Your task to perform on an android device: install app "Microsoft Excel" Image 0: 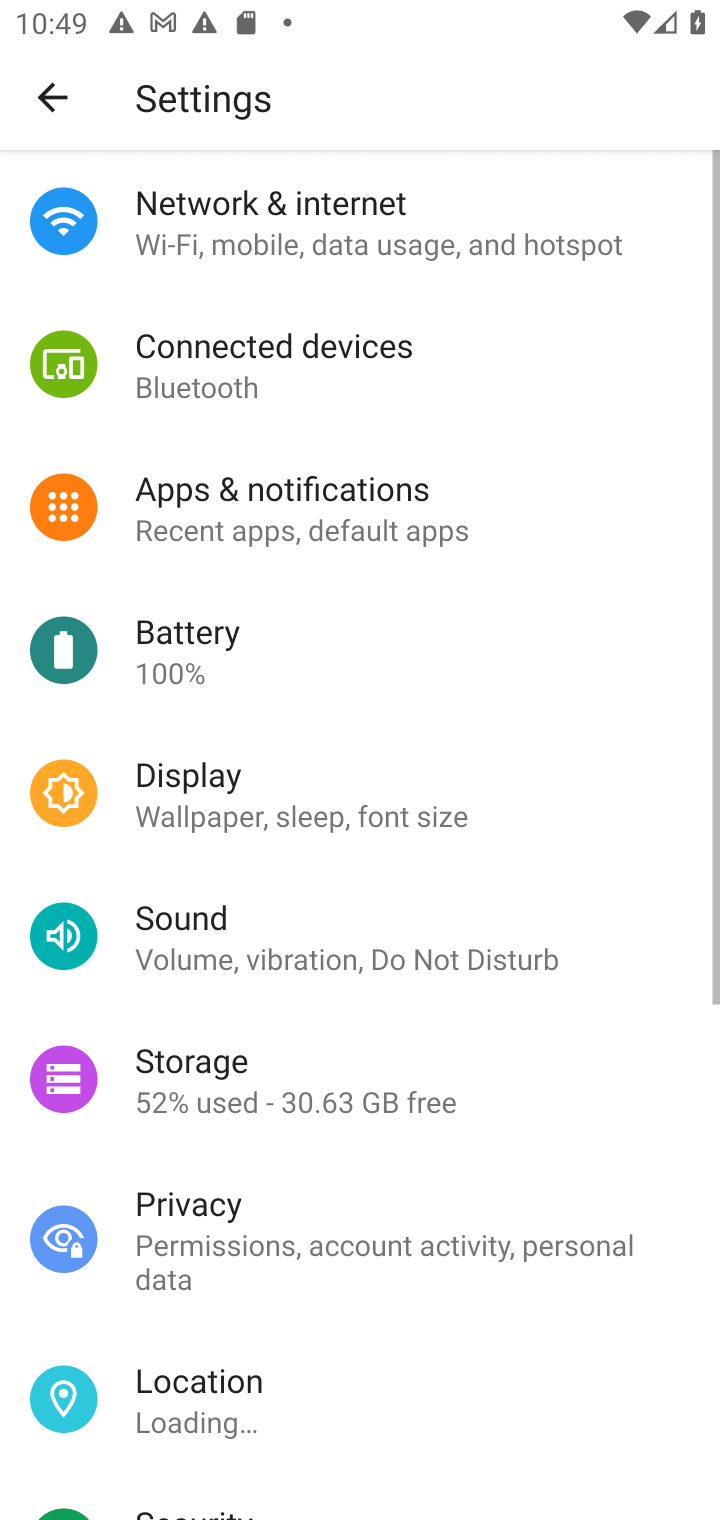
Step 0: press home button
Your task to perform on an android device: install app "Microsoft Excel" Image 1: 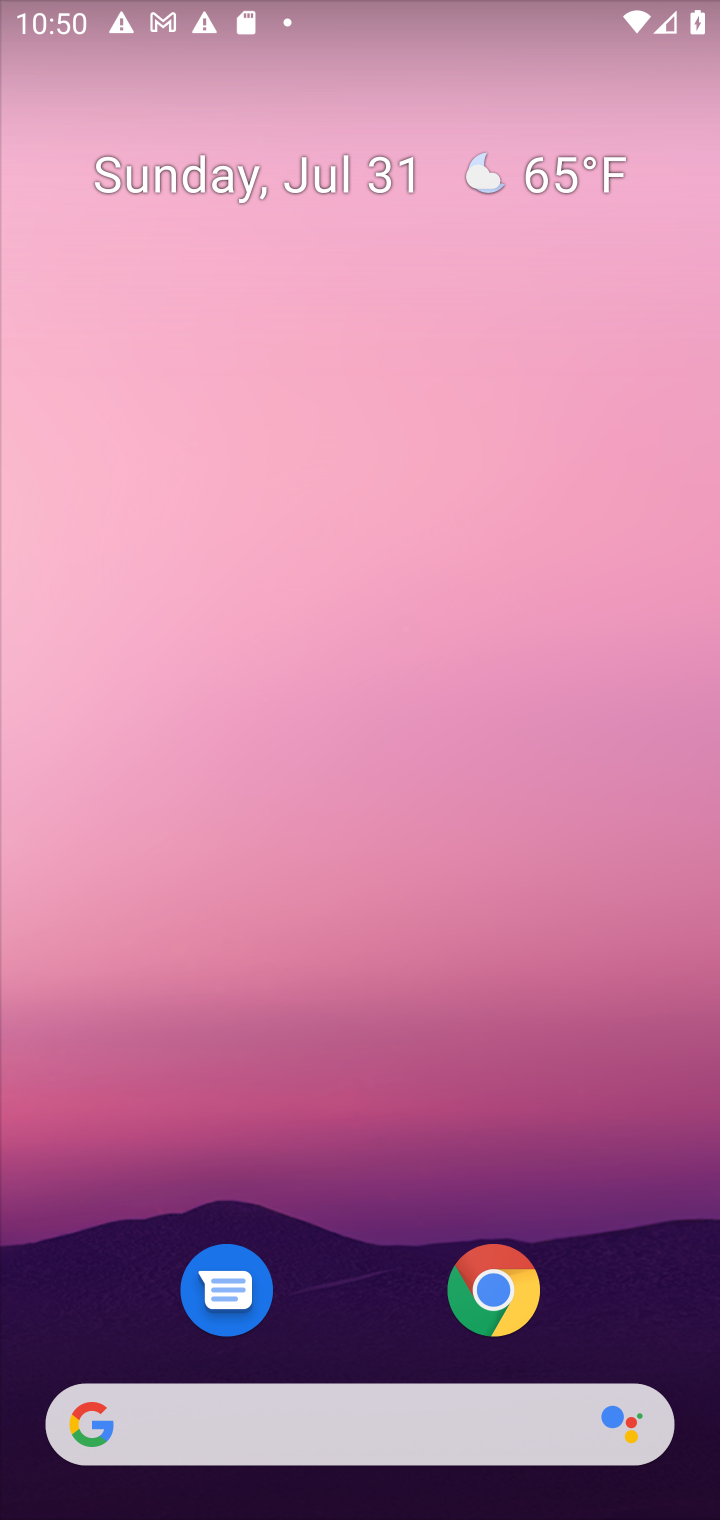
Step 1: drag from (604, 1186) to (614, 120)
Your task to perform on an android device: install app "Microsoft Excel" Image 2: 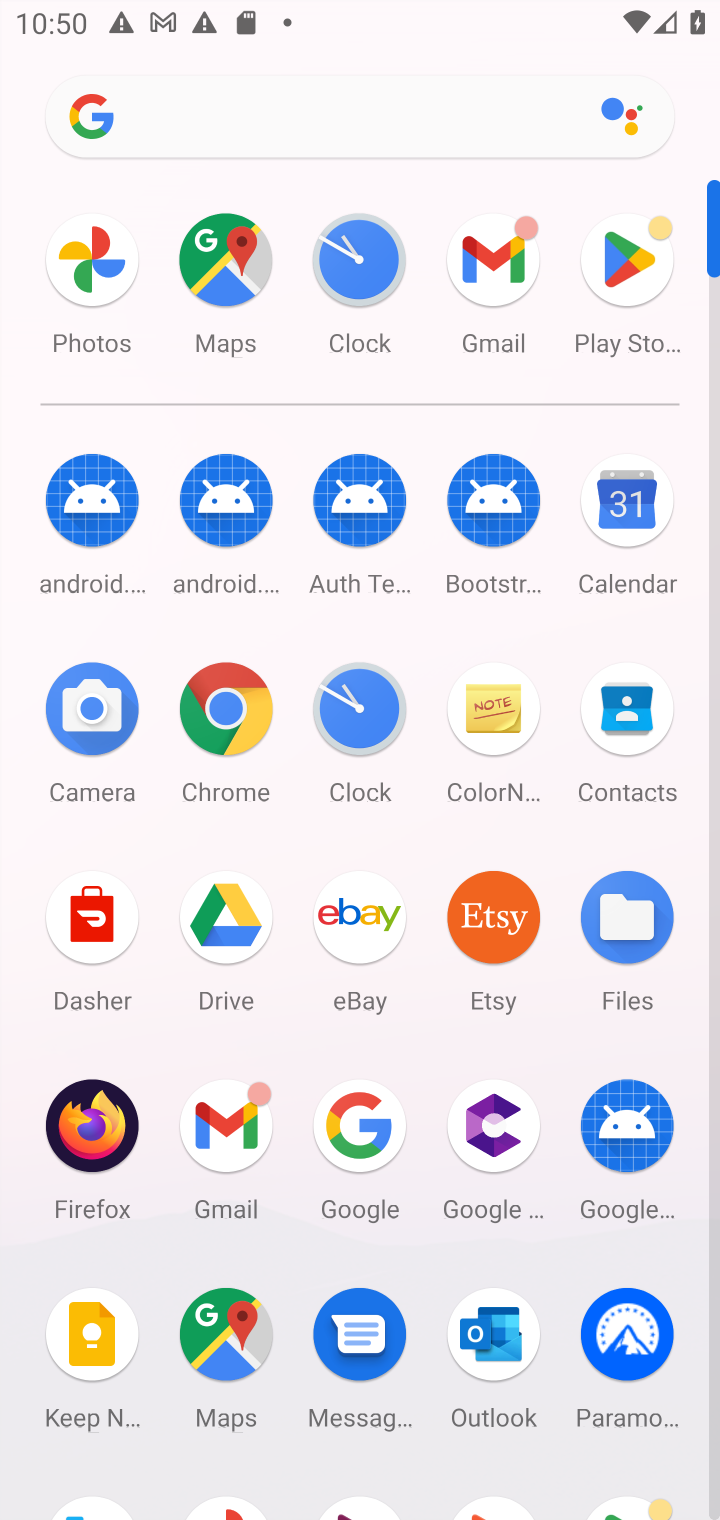
Step 2: click (627, 256)
Your task to perform on an android device: install app "Microsoft Excel" Image 3: 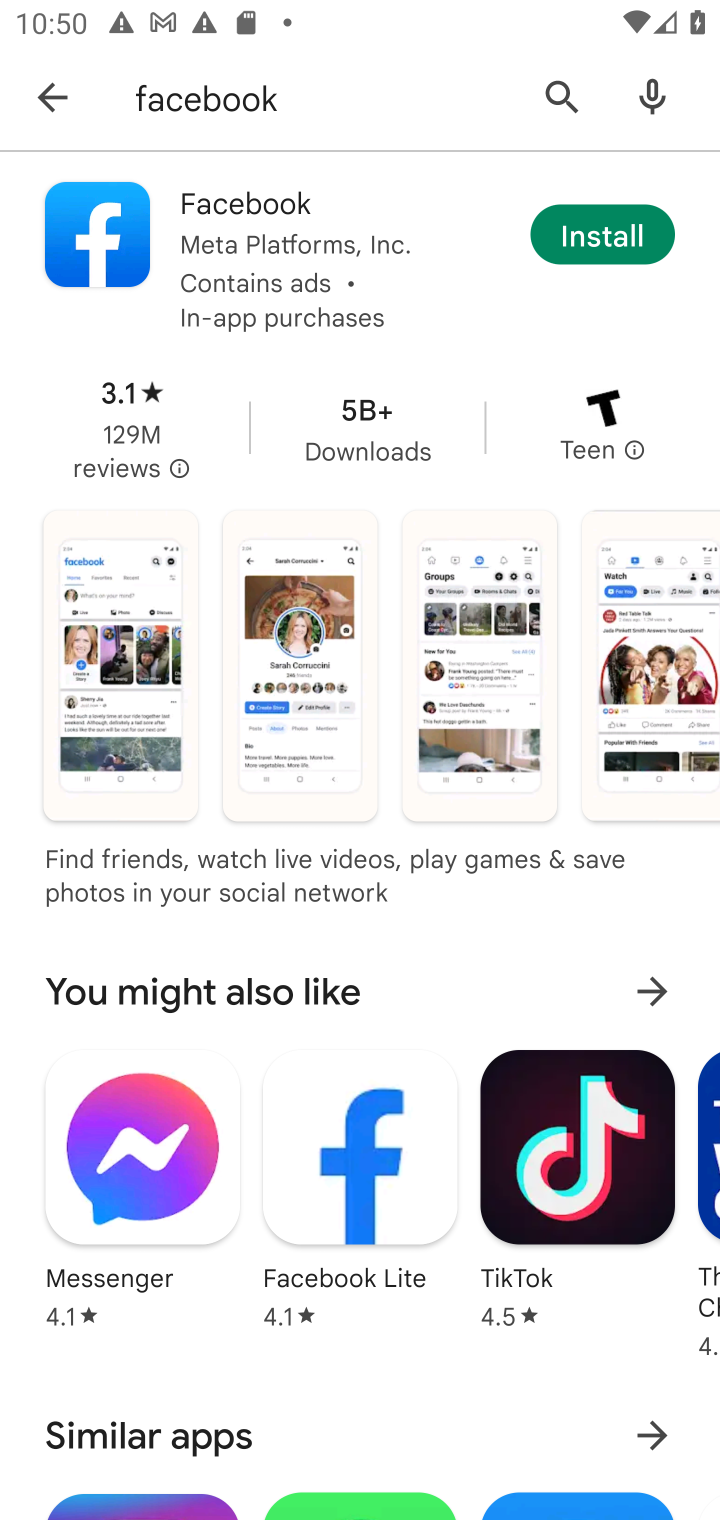
Step 3: click (561, 101)
Your task to perform on an android device: install app "Microsoft Excel" Image 4: 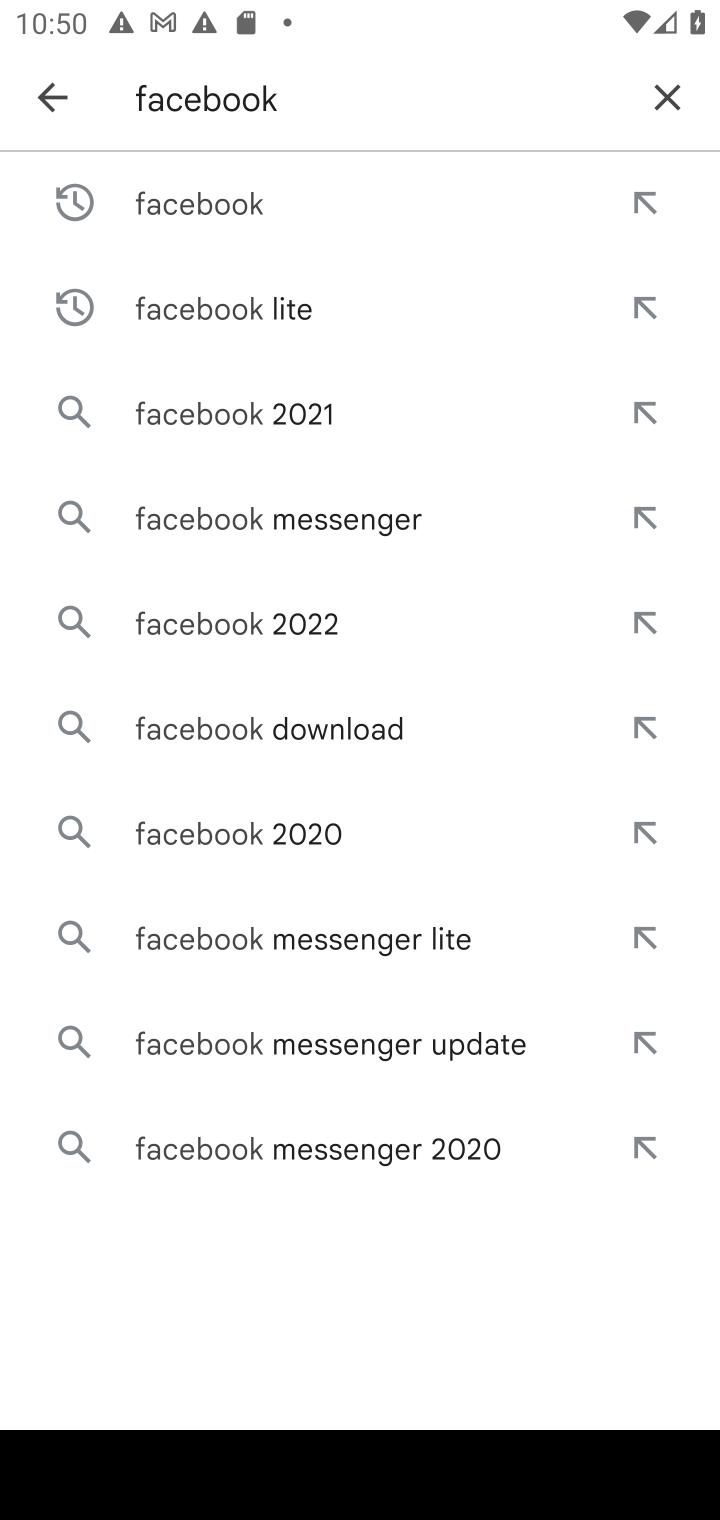
Step 4: click (657, 106)
Your task to perform on an android device: install app "Microsoft Excel" Image 5: 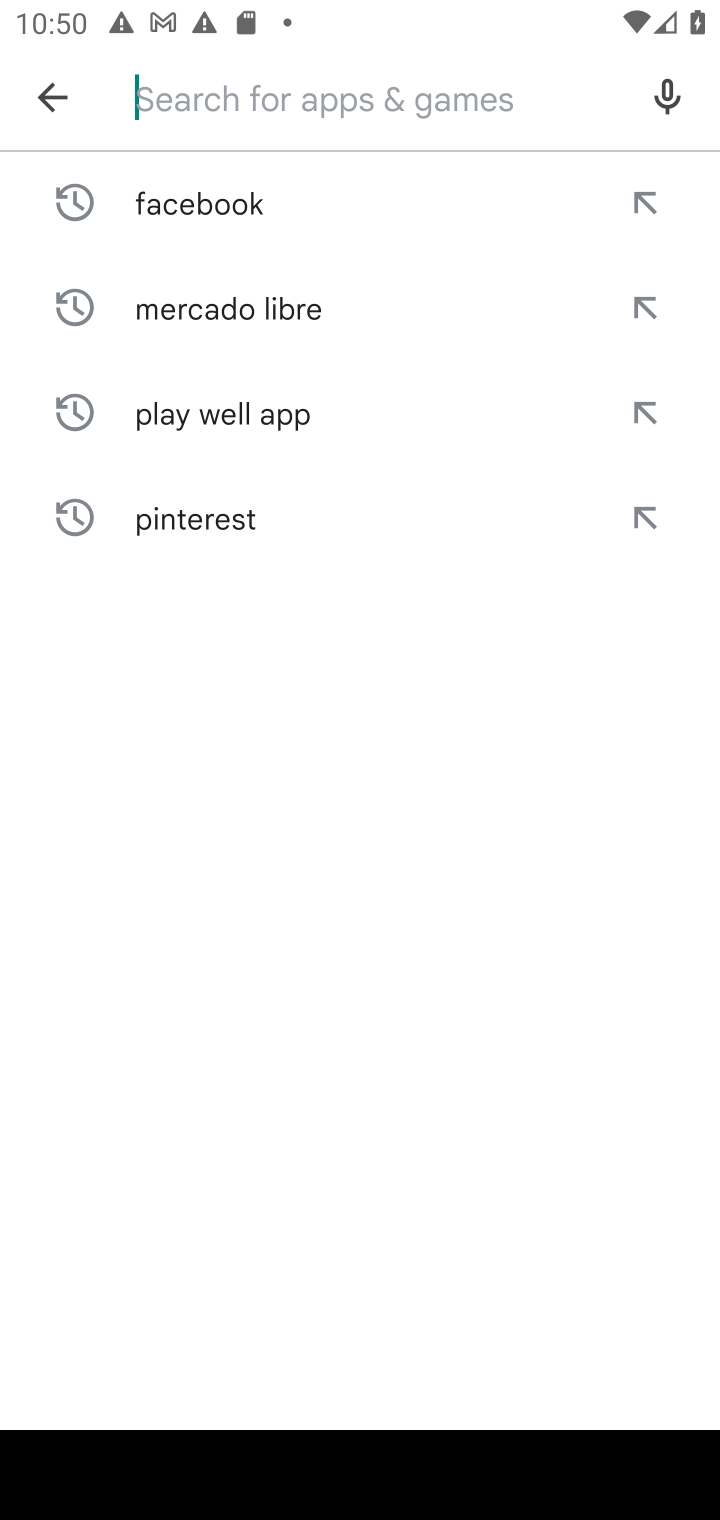
Step 5: type "microsoft excel"
Your task to perform on an android device: install app "Microsoft Excel" Image 6: 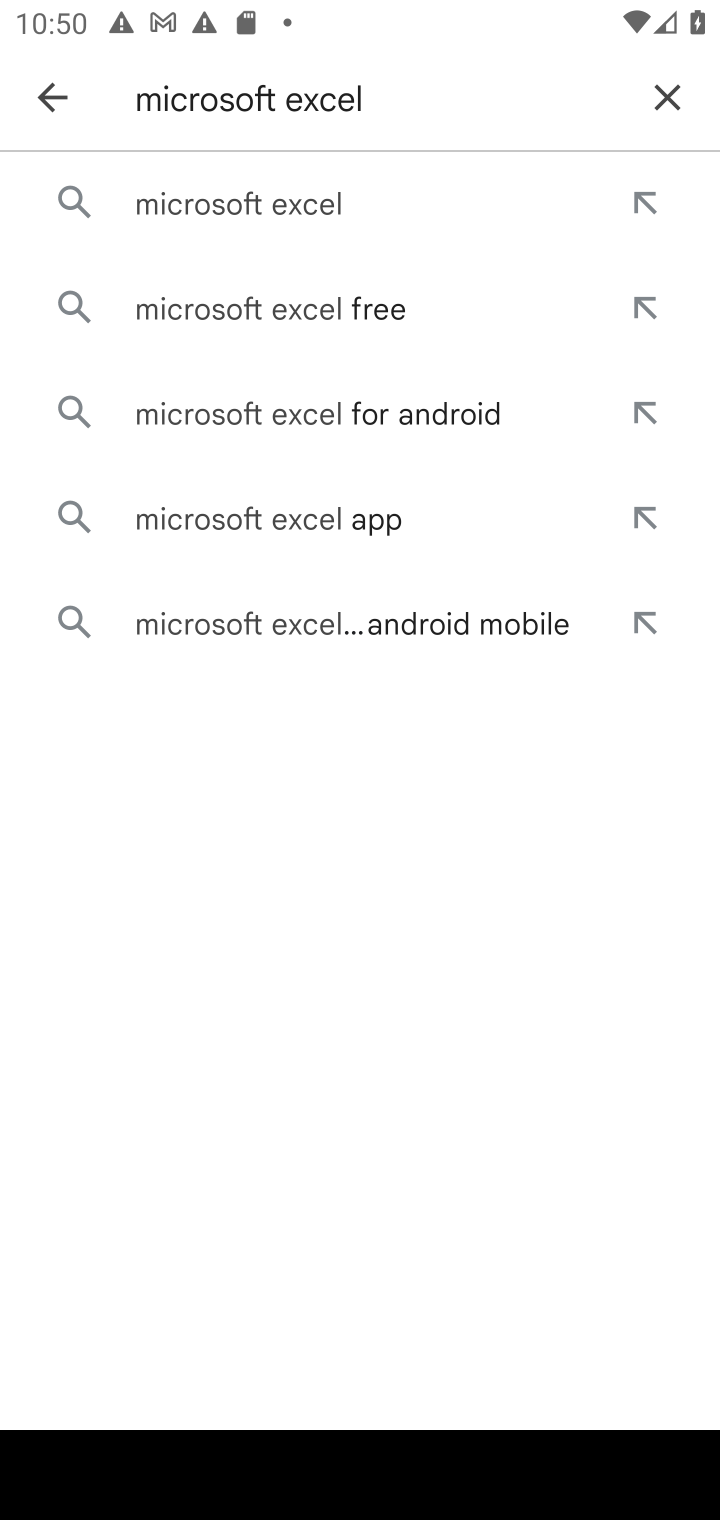
Step 6: click (308, 195)
Your task to perform on an android device: install app "Microsoft Excel" Image 7: 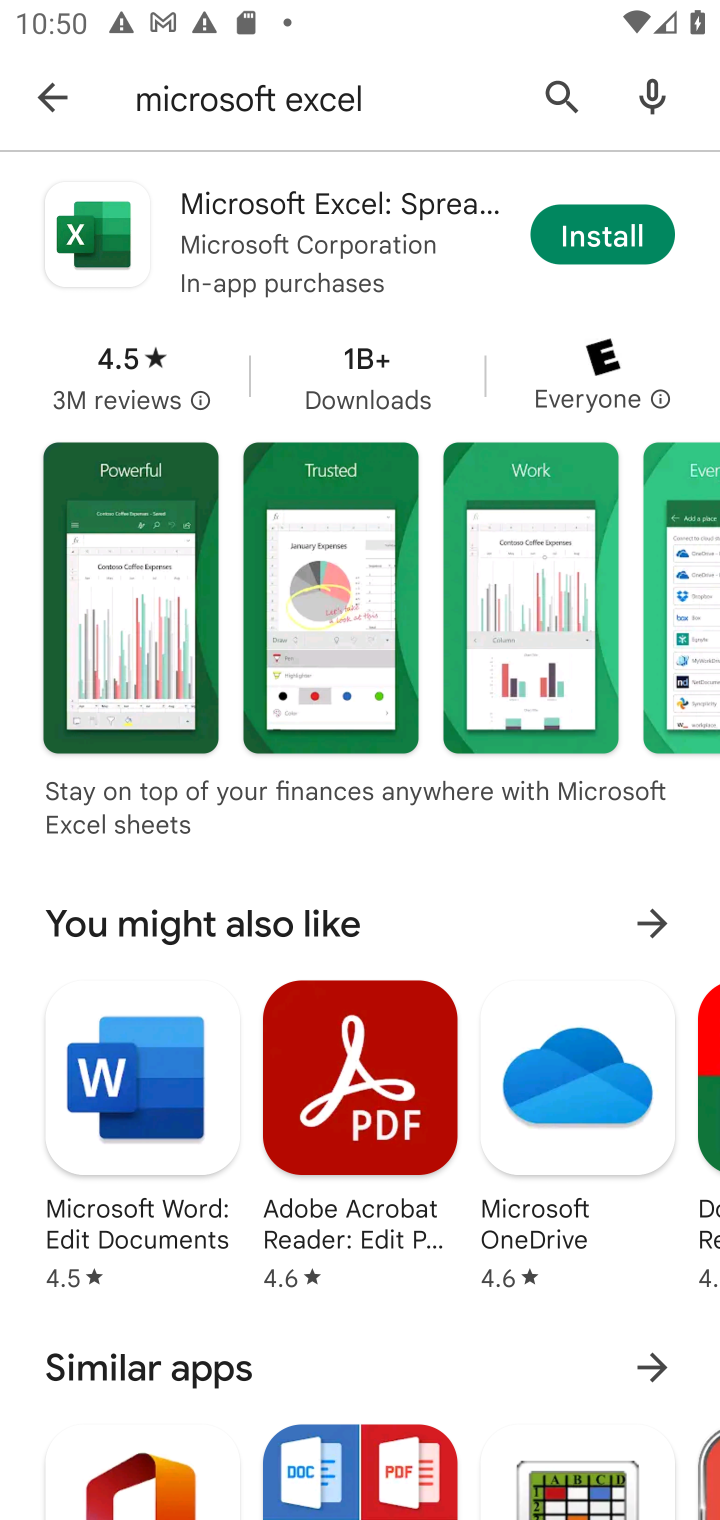
Step 7: click (601, 231)
Your task to perform on an android device: install app "Microsoft Excel" Image 8: 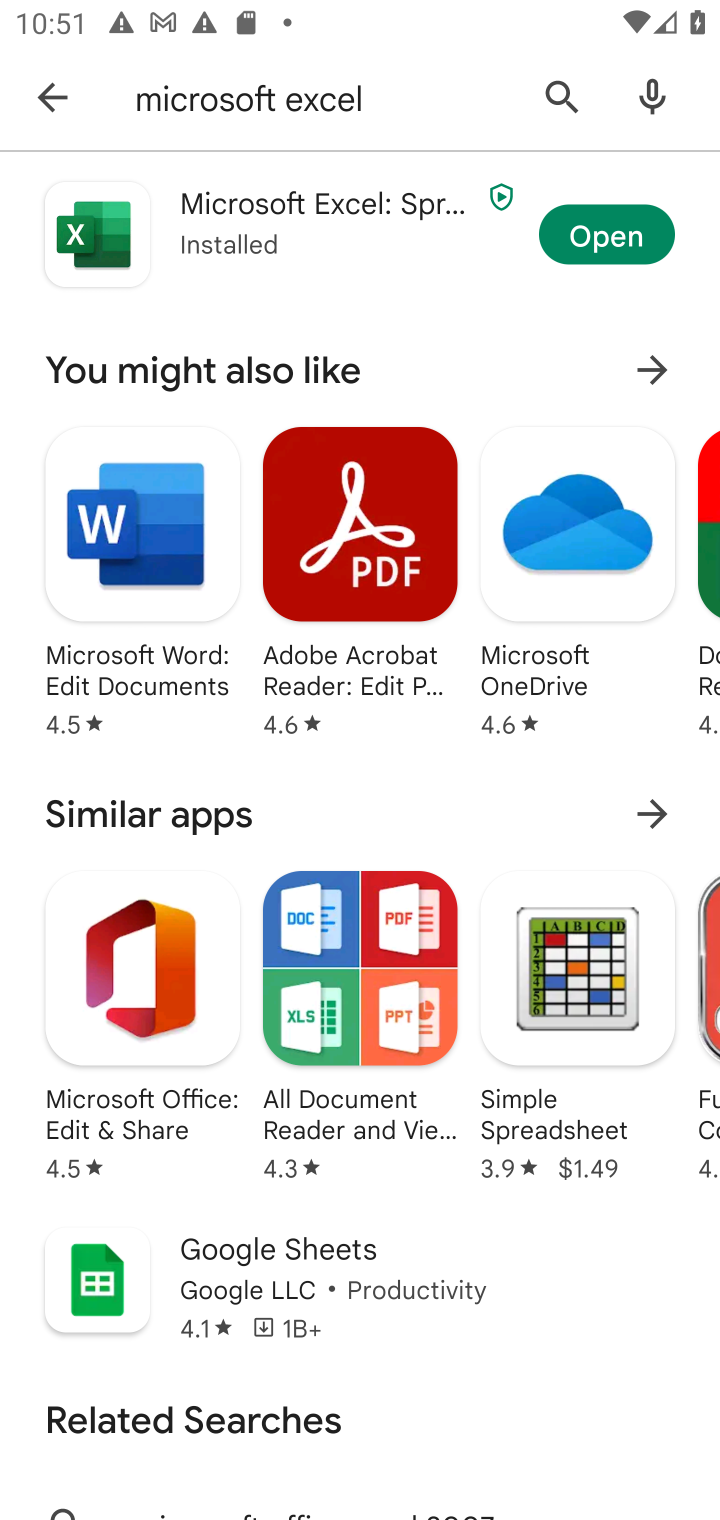
Step 8: task complete